Your task to perform on an android device: change notification settings in the gmail app Image 0: 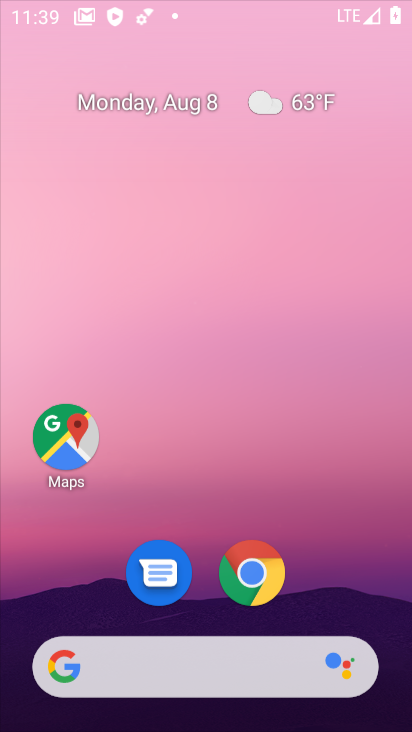
Step 0: drag from (141, 156) to (24, 255)
Your task to perform on an android device: change notification settings in the gmail app Image 1: 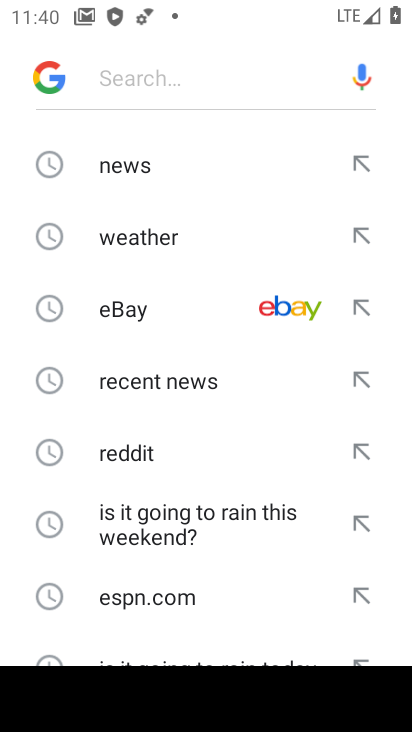
Step 1: press home button
Your task to perform on an android device: change notification settings in the gmail app Image 2: 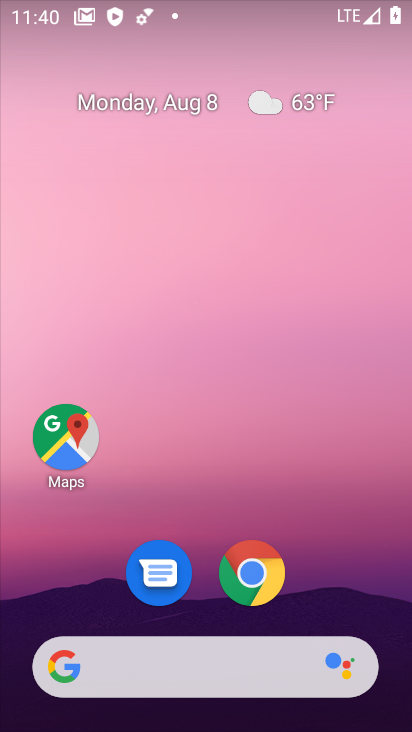
Step 2: drag from (200, 646) to (75, 193)
Your task to perform on an android device: change notification settings in the gmail app Image 3: 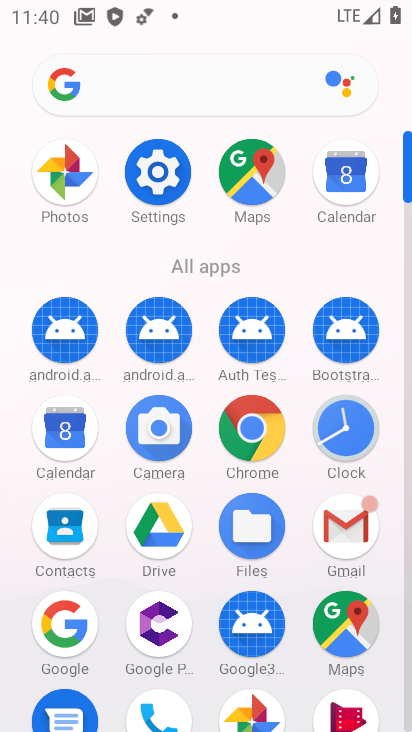
Step 3: click (336, 531)
Your task to perform on an android device: change notification settings in the gmail app Image 4: 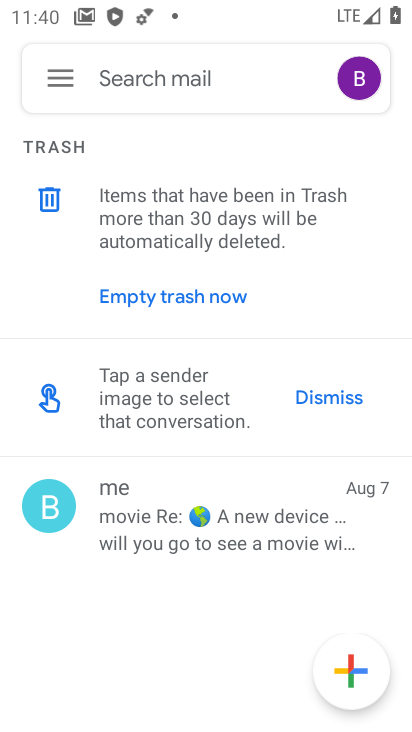
Step 4: click (56, 76)
Your task to perform on an android device: change notification settings in the gmail app Image 5: 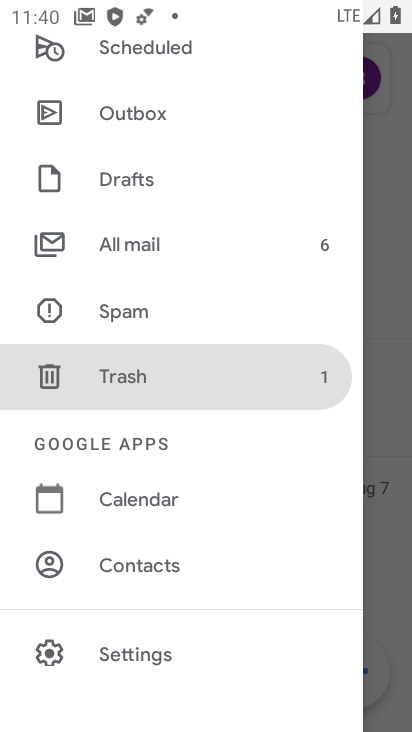
Step 5: click (143, 658)
Your task to perform on an android device: change notification settings in the gmail app Image 6: 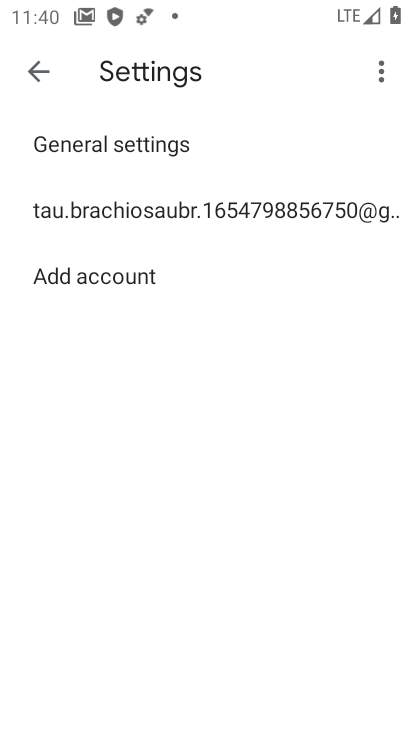
Step 6: click (82, 205)
Your task to perform on an android device: change notification settings in the gmail app Image 7: 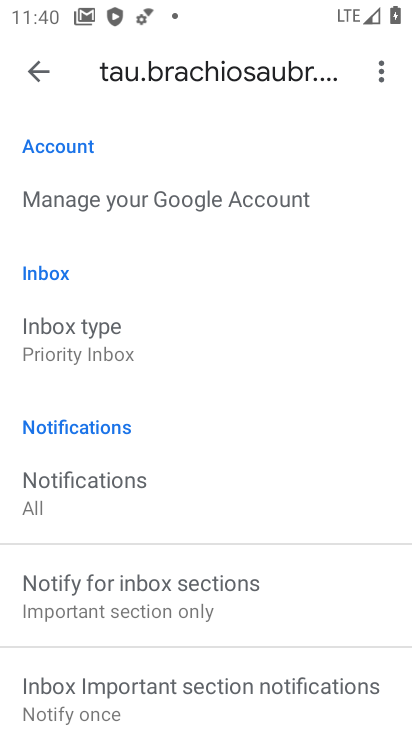
Step 7: click (41, 500)
Your task to perform on an android device: change notification settings in the gmail app Image 8: 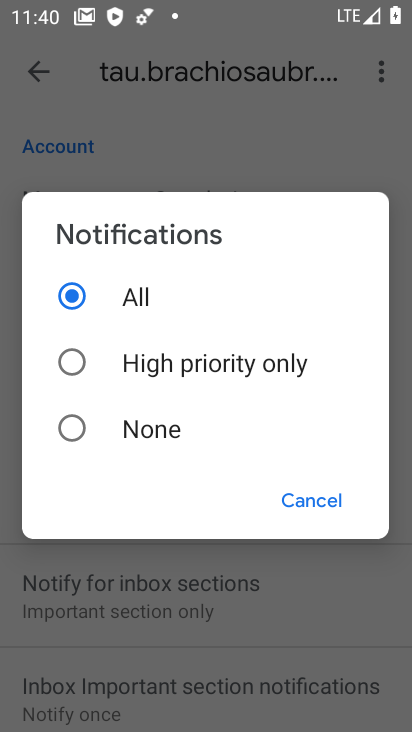
Step 8: click (159, 367)
Your task to perform on an android device: change notification settings in the gmail app Image 9: 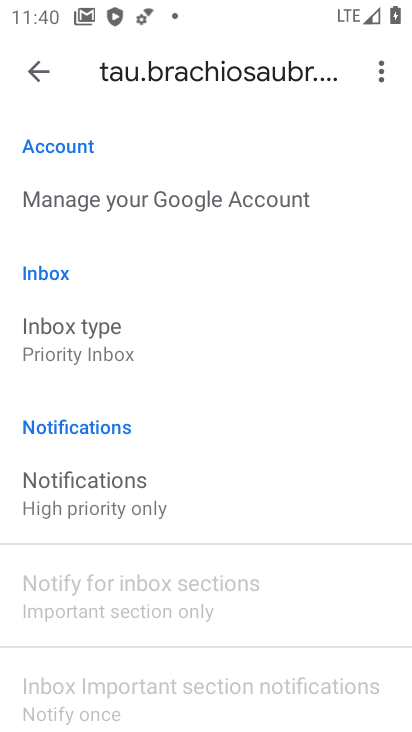
Step 9: task complete